Your task to perform on an android device: snooze an email in the gmail app Image 0: 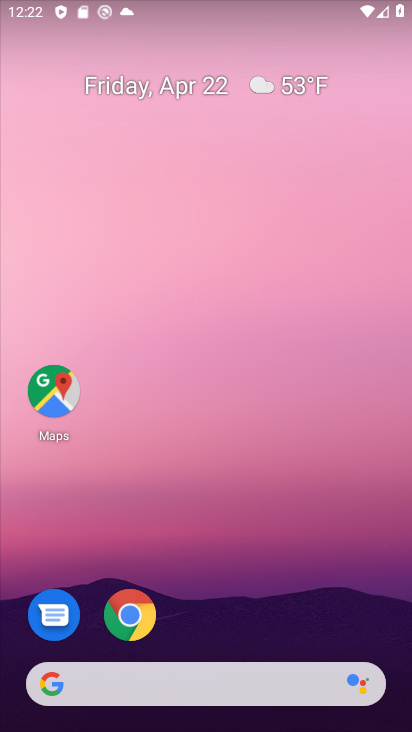
Step 0: drag from (374, 588) to (371, 25)
Your task to perform on an android device: snooze an email in the gmail app Image 1: 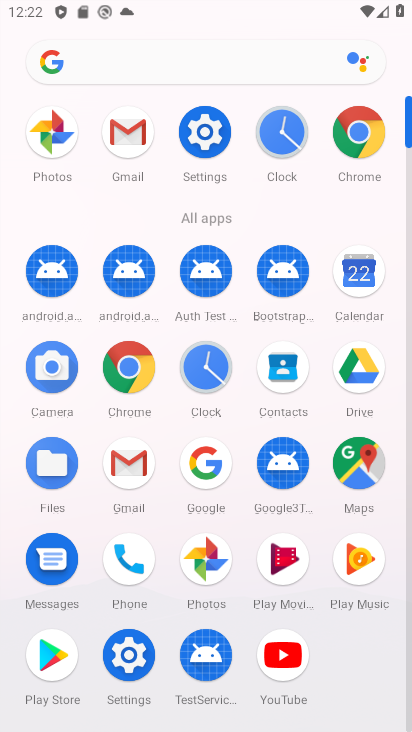
Step 1: click (123, 140)
Your task to perform on an android device: snooze an email in the gmail app Image 2: 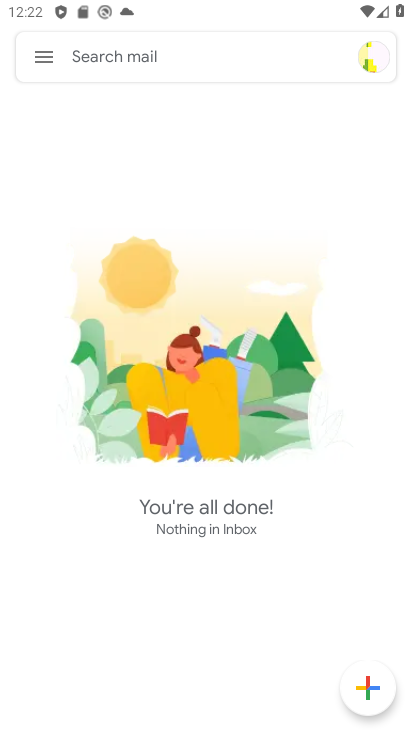
Step 2: click (43, 63)
Your task to perform on an android device: snooze an email in the gmail app Image 3: 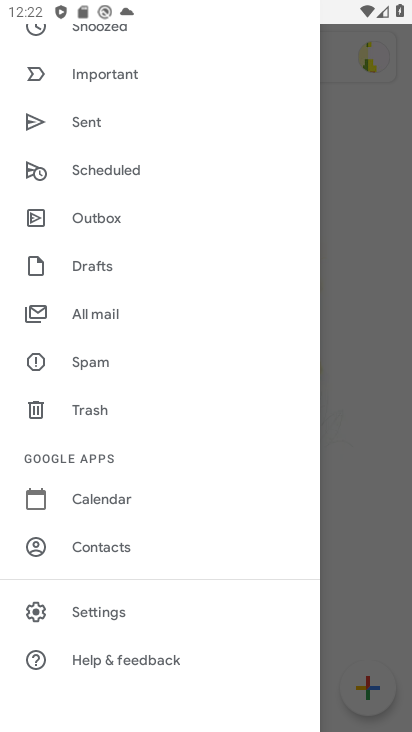
Step 3: click (81, 319)
Your task to perform on an android device: snooze an email in the gmail app Image 4: 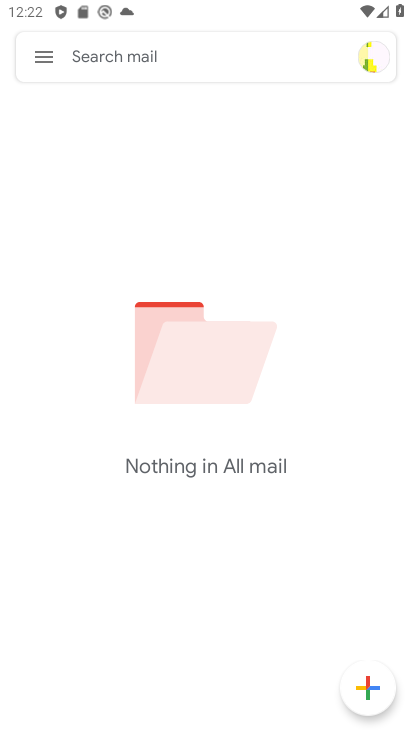
Step 4: task complete